Your task to perform on an android device: stop showing notifications on the lock screen Image 0: 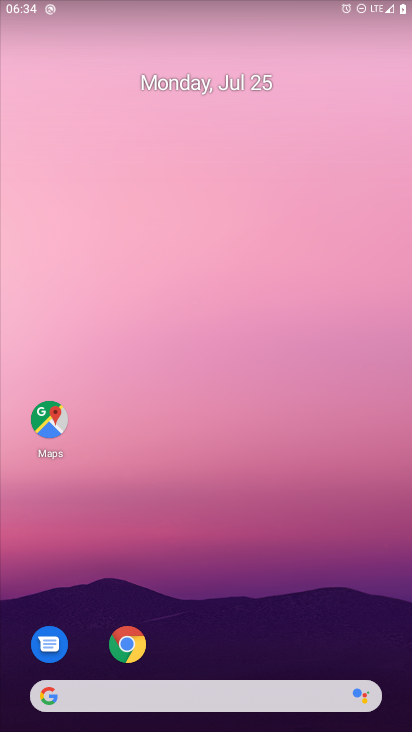
Step 0: press home button
Your task to perform on an android device: stop showing notifications on the lock screen Image 1: 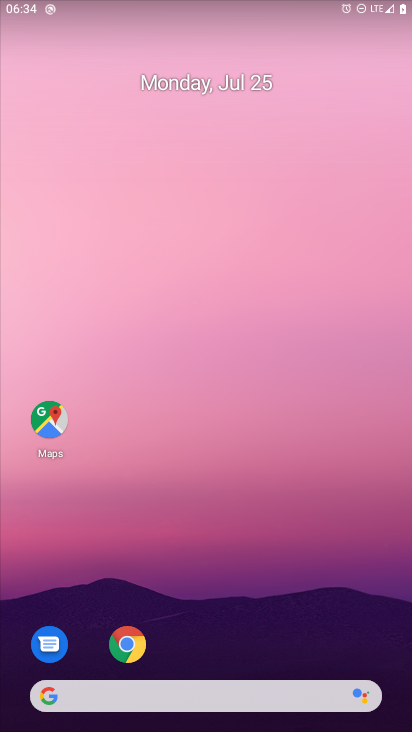
Step 1: drag from (249, 651) to (289, 219)
Your task to perform on an android device: stop showing notifications on the lock screen Image 2: 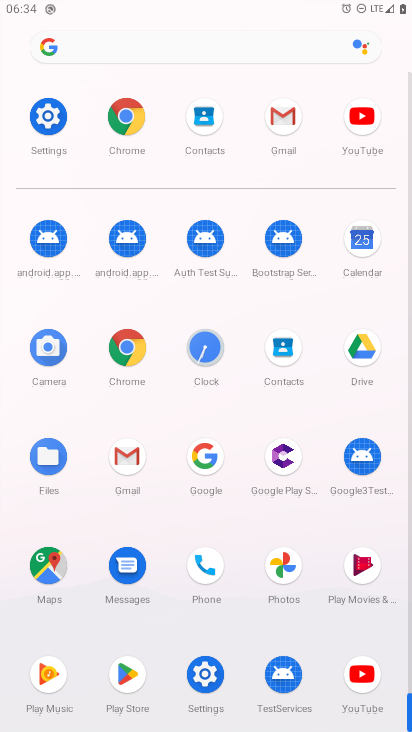
Step 2: click (48, 121)
Your task to perform on an android device: stop showing notifications on the lock screen Image 3: 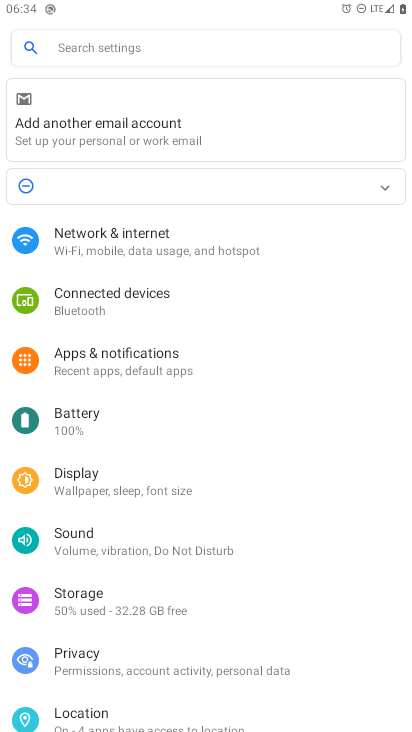
Step 3: click (110, 363)
Your task to perform on an android device: stop showing notifications on the lock screen Image 4: 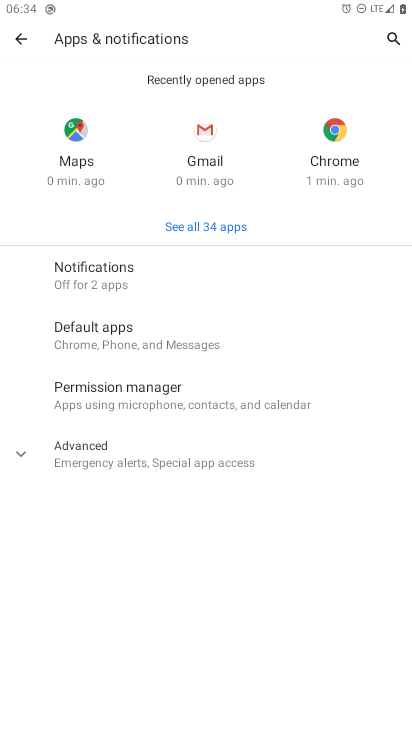
Step 4: click (95, 269)
Your task to perform on an android device: stop showing notifications on the lock screen Image 5: 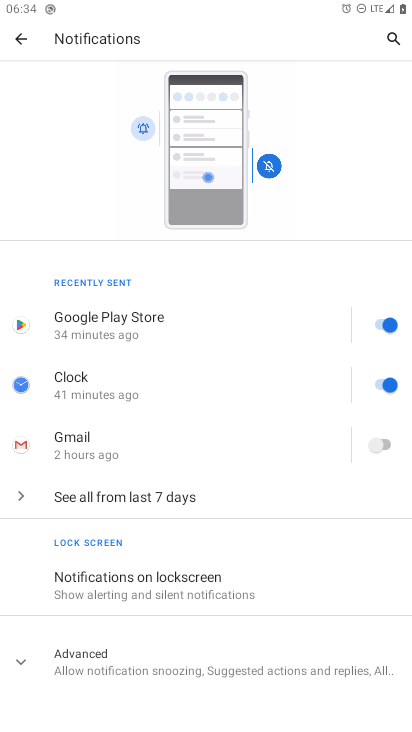
Step 5: click (108, 591)
Your task to perform on an android device: stop showing notifications on the lock screen Image 6: 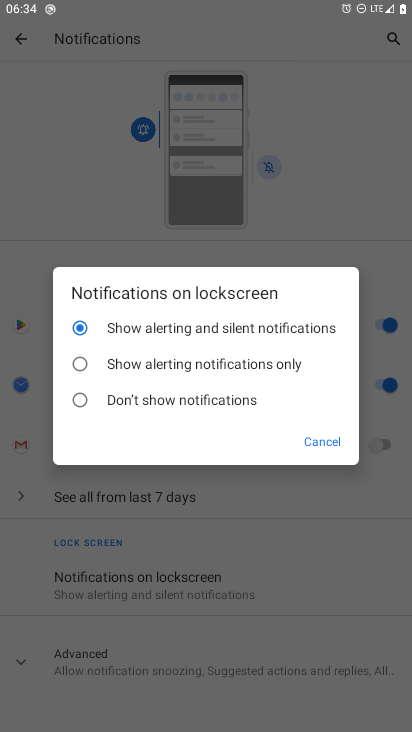
Step 6: click (77, 395)
Your task to perform on an android device: stop showing notifications on the lock screen Image 7: 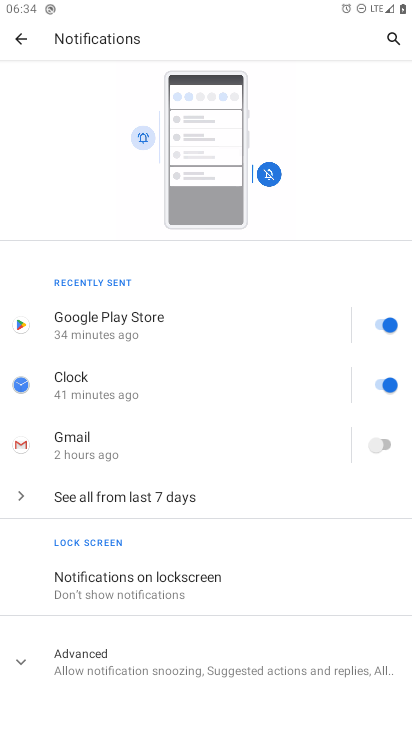
Step 7: task complete